Your task to perform on an android device: Is it going to rain tomorrow? Image 0: 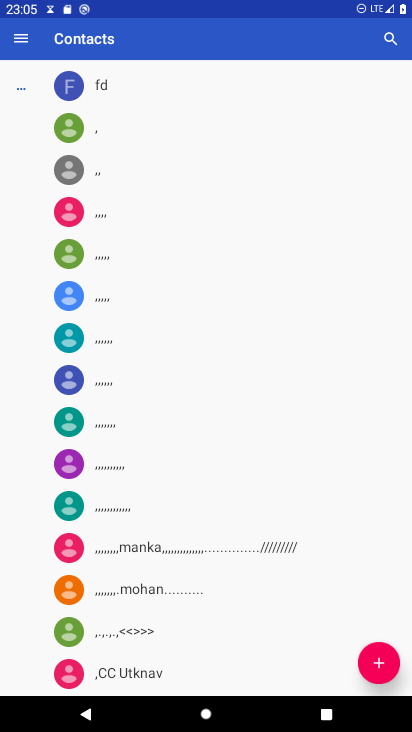
Step 0: press home button
Your task to perform on an android device: Is it going to rain tomorrow? Image 1: 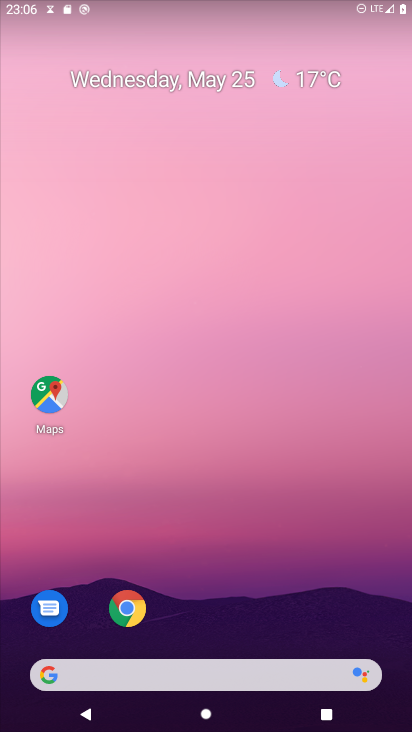
Step 1: drag from (307, 512) to (162, 36)
Your task to perform on an android device: Is it going to rain tomorrow? Image 2: 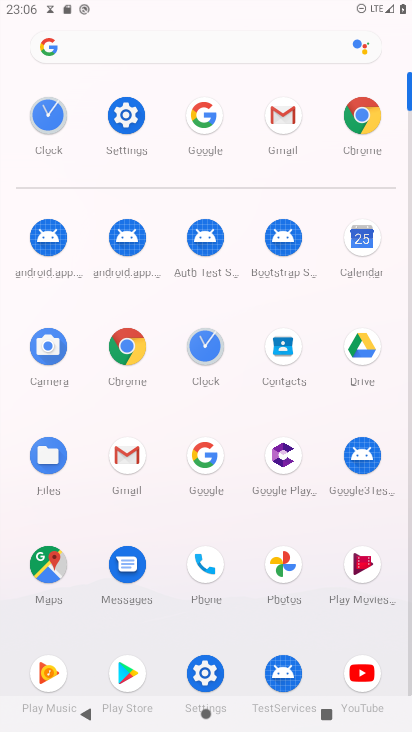
Step 2: click (208, 125)
Your task to perform on an android device: Is it going to rain tomorrow? Image 3: 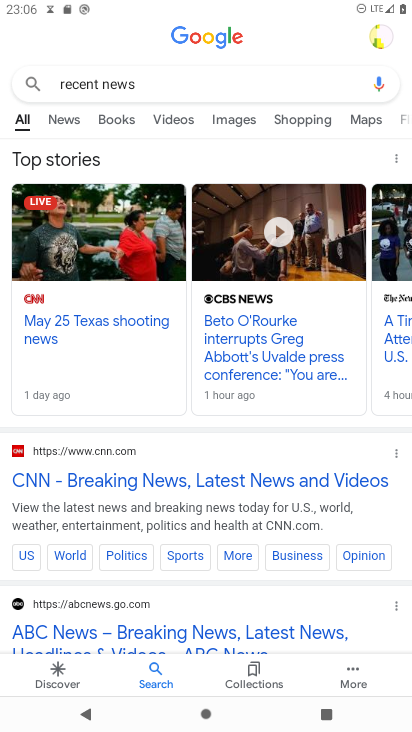
Step 3: click (142, 85)
Your task to perform on an android device: Is it going to rain tomorrow? Image 4: 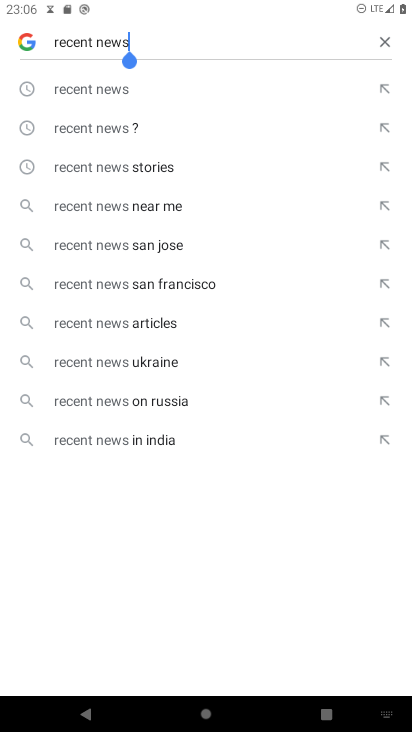
Step 4: click (385, 41)
Your task to perform on an android device: Is it going to rain tomorrow? Image 5: 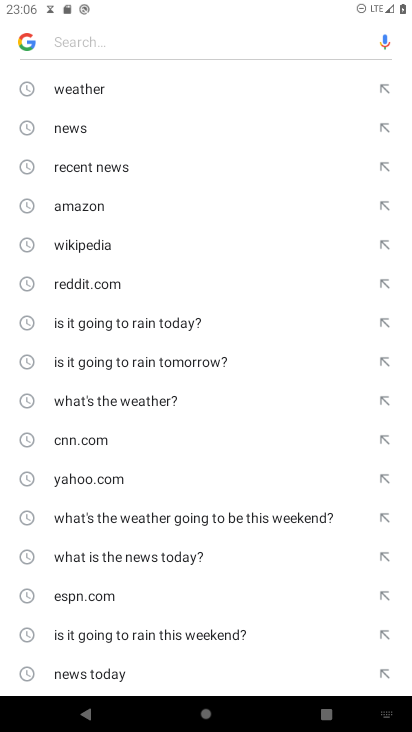
Step 5: click (106, 94)
Your task to perform on an android device: Is it going to rain tomorrow? Image 6: 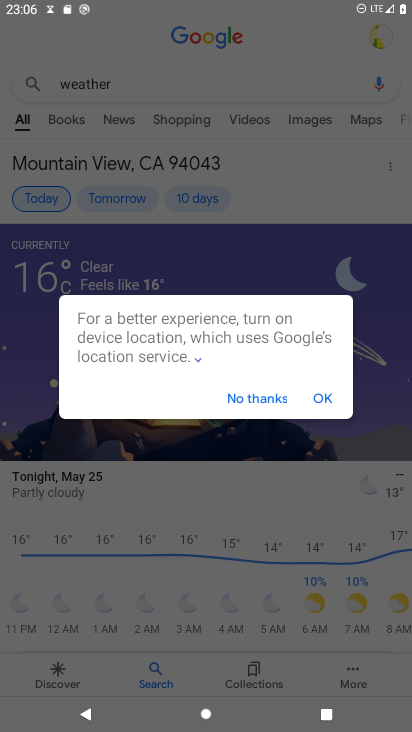
Step 6: click (256, 394)
Your task to perform on an android device: Is it going to rain tomorrow? Image 7: 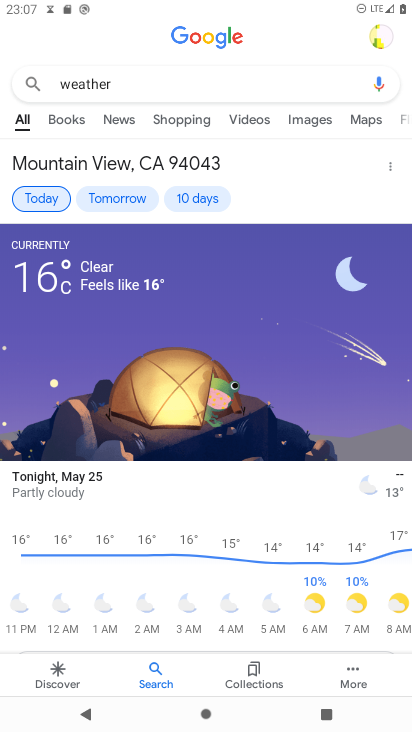
Step 7: click (131, 198)
Your task to perform on an android device: Is it going to rain tomorrow? Image 8: 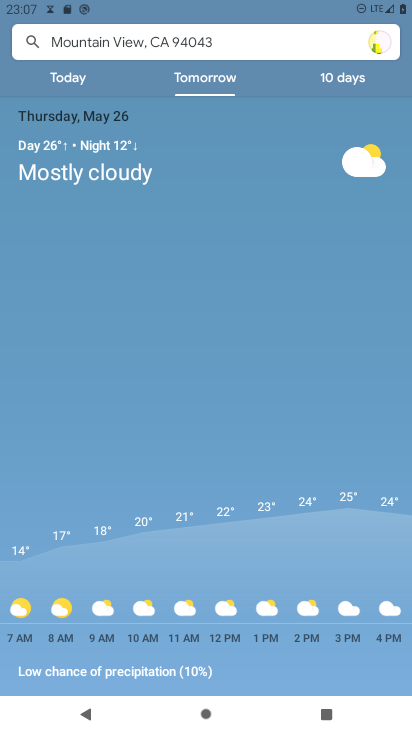
Step 8: task complete